Your task to perform on an android device: turn on wifi Image 0: 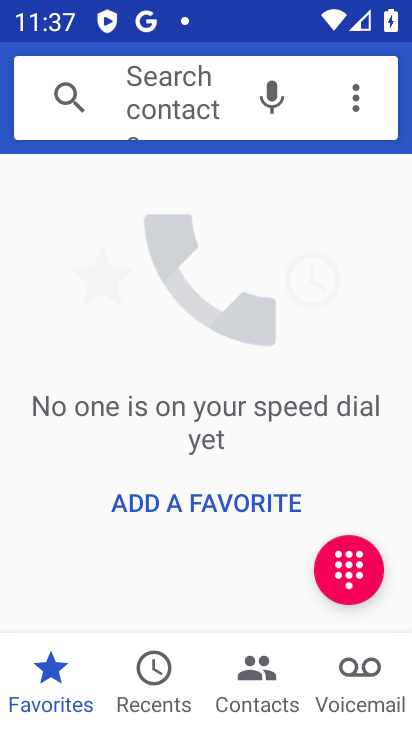
Step 0: press home button
Your task to perform on an android device: turn on wifi Image 1: 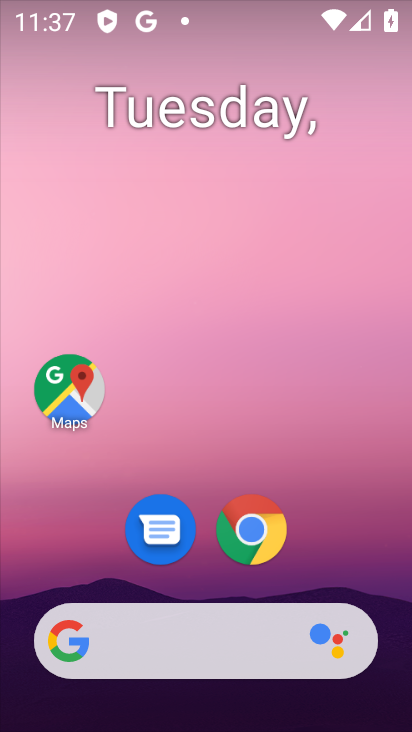
Step 1: drag from (215, 479) to (278, 95)
Your task to perform on an android device: turn on wifi Image 2: 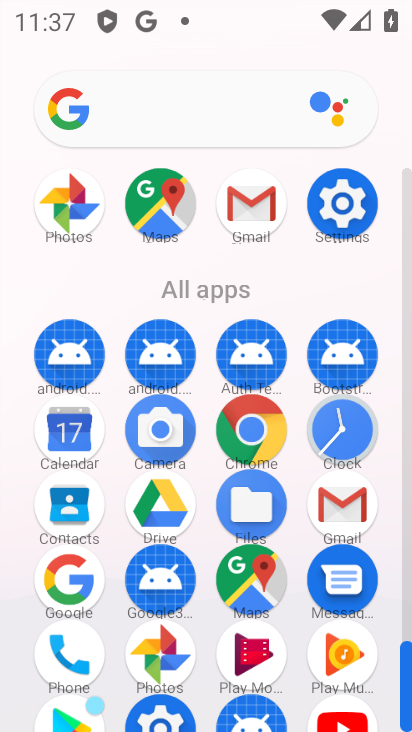
Step 2: click (354, 192)
Your task to perform on an android device: turn on wifi Image 3: 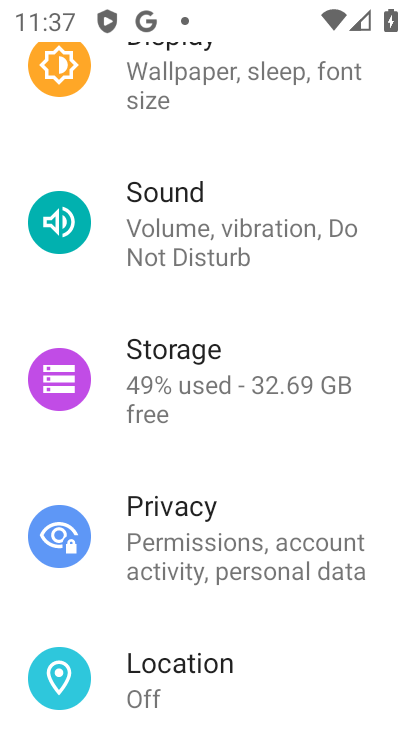
Step 3: drag from (242, 205) to (240, 724)
Your task to perform on an android device: turn on wifi Image 4: 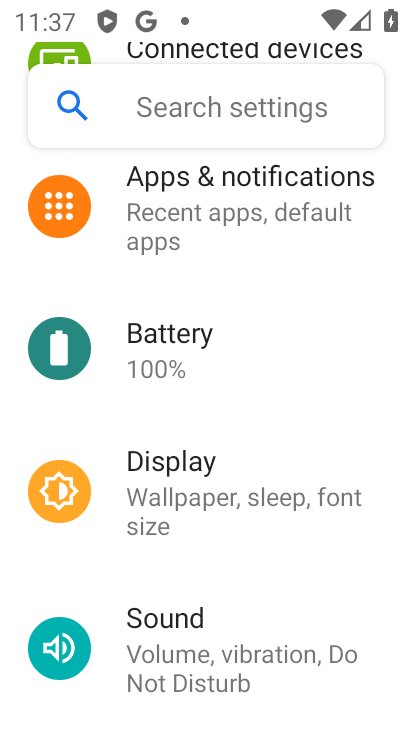
Step 4: drag from (256, 300) to (238, 704)
Your task to perform on an android device: turn on wifi Image 5: 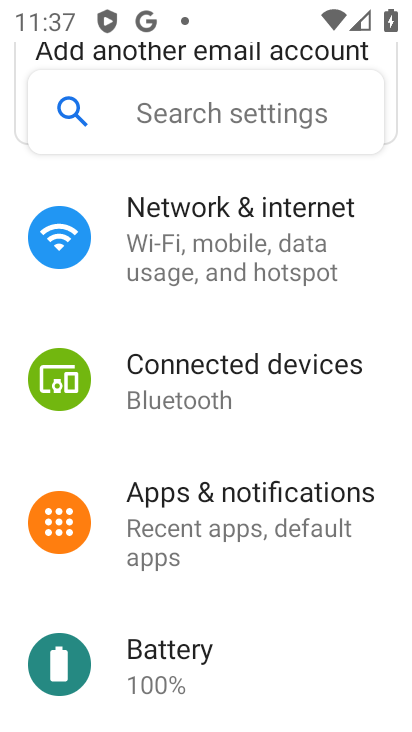
Step 5: drag from (249, 192) to (245, 591)
Your task to perform on an android device: turn on wifi Image 6: 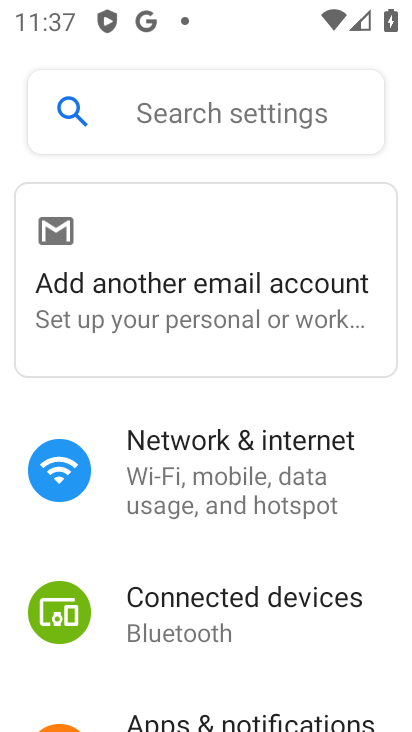
Step 6: click (222, 501)
Your task to perform on an android device: turn on wifi Image 7: 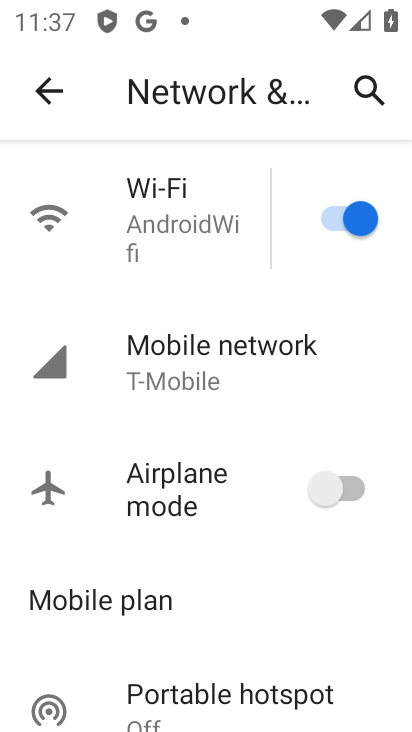
Step 7: task complete